Your task to perform on an android device: Go to Android settings Image 0: 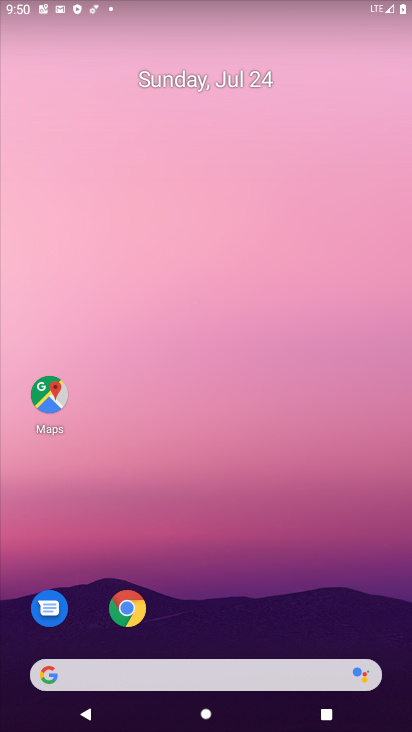
Step 0: press home button
Your task to perform on an android device: Go to Android settings Image 1: 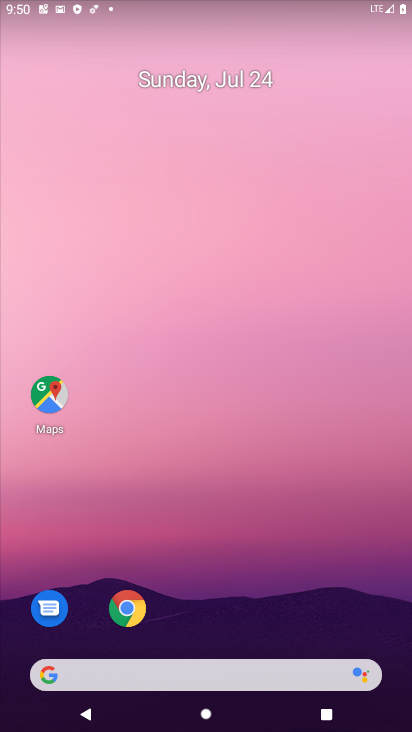
Step 1: drag from (222, 637) to (204, 30)
Your task to perform on an android device: Go to Android settings Image 2: 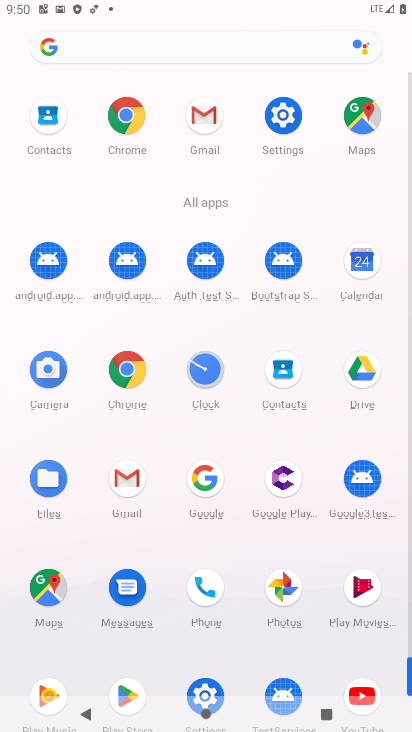
Step 2: click (282, 110)
Your task to perform on an android device: Go to Android settings Image 3: 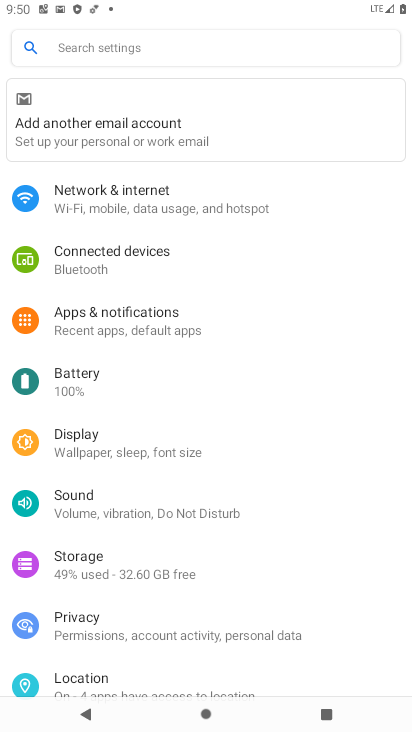
Step 3: drag from (192, 656) to (187, 143)
Your task to perform on an android device: Go to Android settings Image 4: 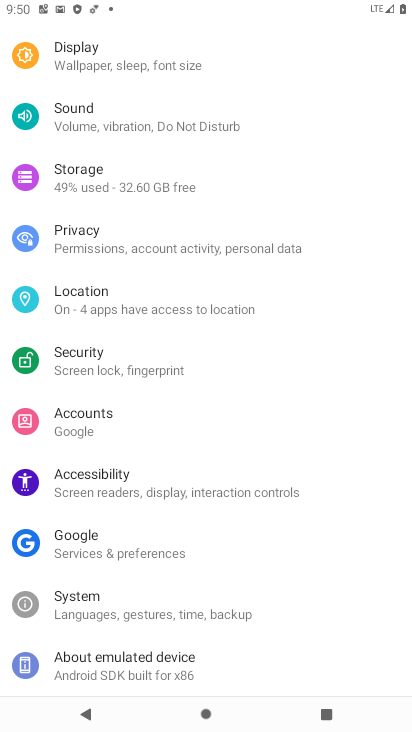
Step 4: click (200, 666)
Your task to perform on an android device: Go to Android settings Image 5: 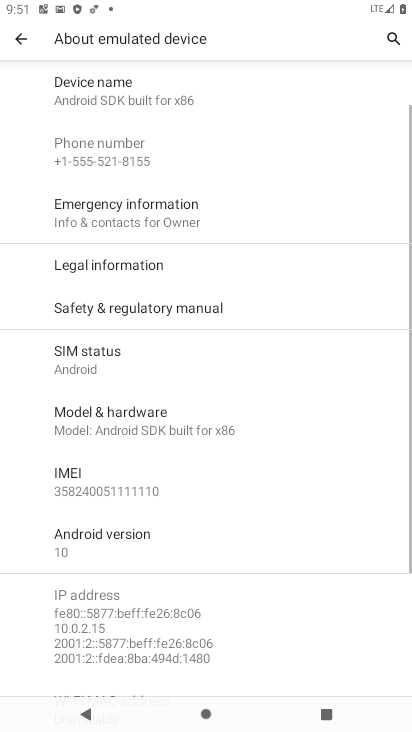
Step 5: click (112, 550)
Your task to perform on an android device: Go to Android settings Image 6: 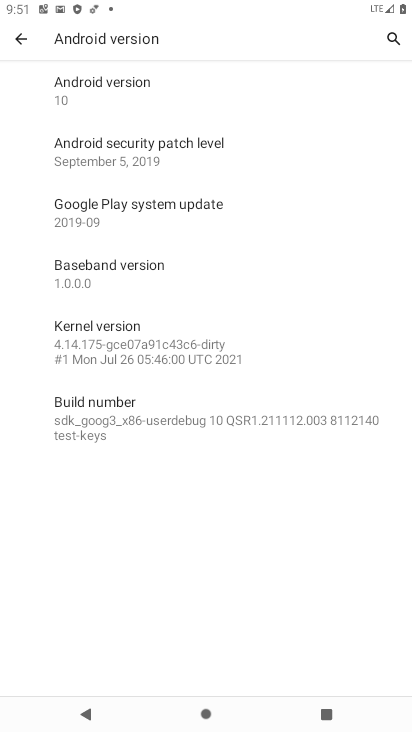
Step 6: task complete